Your task to perform on an android device: Go to privacy settings Image 0: 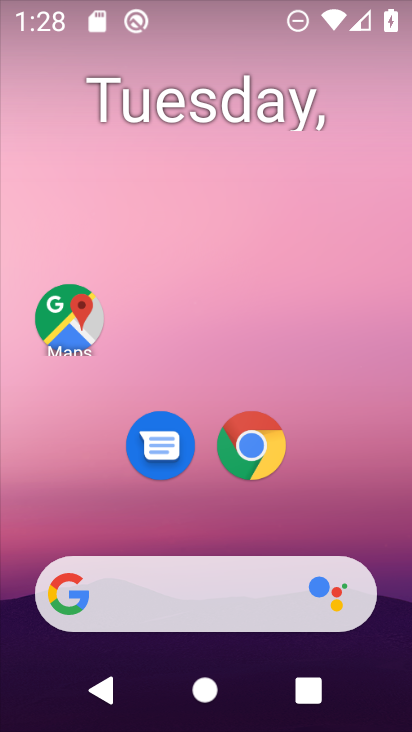
Step 0: drag from (248, 508) to (276, 59)
Your task to perform on an android device: Go to privacy settings Image 1: 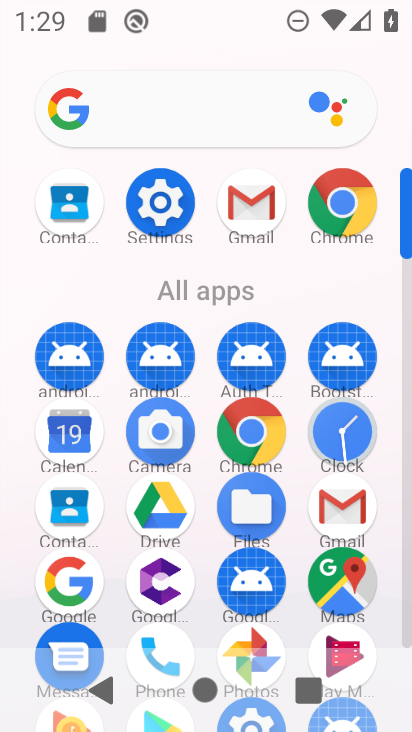
Step 1: click (167, 215)
Your task to perform on an android device: Go to privacy settings Image 2: 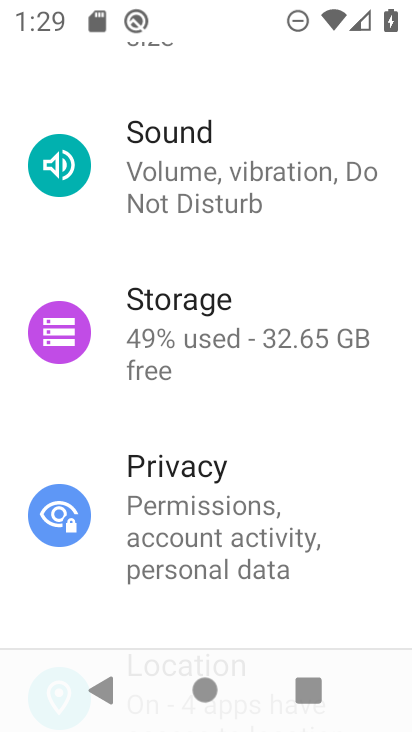
Step 2: click (207, 518)
Your task to perform on an android device: Go to privacy settings Image 3: 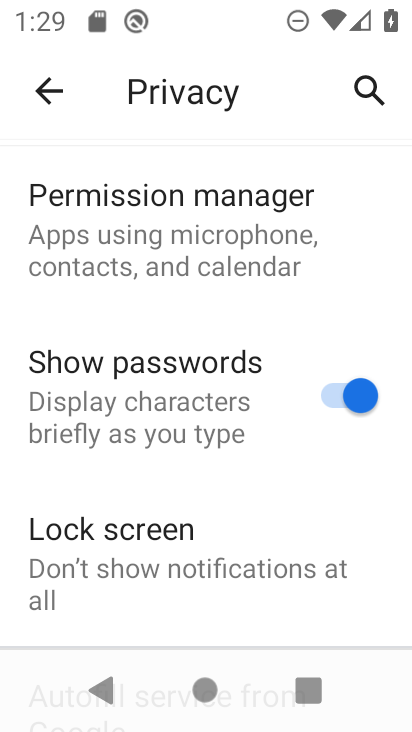
Step 3: task complete